Your task to perform on an android device: star an email in the gmail app Image 0: 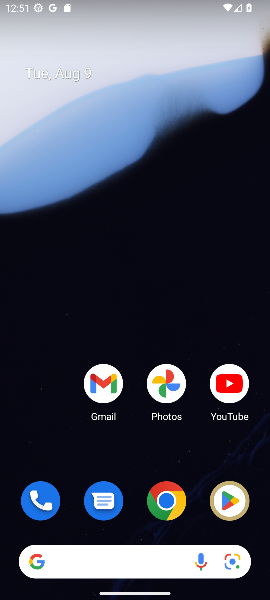
Step 0: click (112, 386)
Your task to perform on an android device: star an email in the gmail app Image 1: 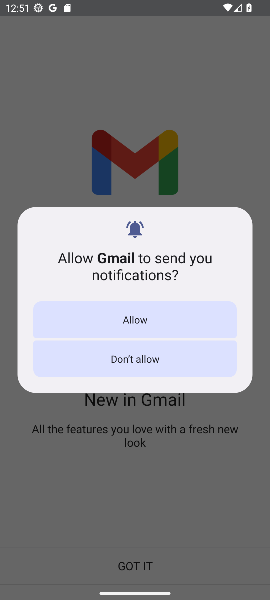
Step 1: click (193, 321)
Your task to perform on an android device: star an email in the gmail app Image 2: 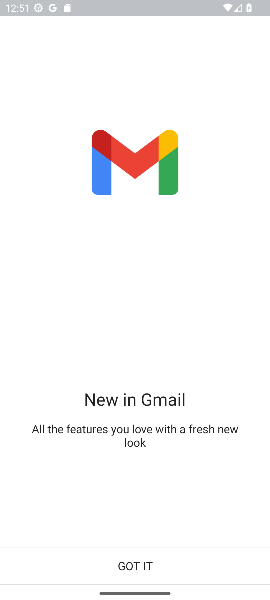
Step 2: click (155, 556)
Your task to perform on an android device: star an email in the gmail app Image 3: 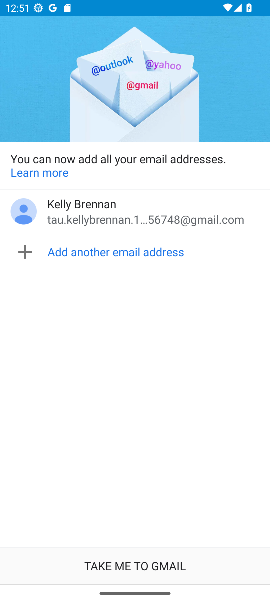
Step 3: click (138, 562)
Your task to perform on an android device: star an email in the gmail app Image 4: 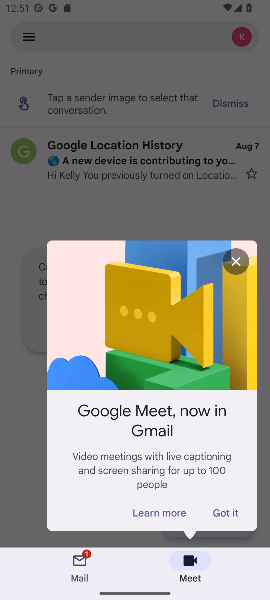
Step 4: click (242, 254)
Your task to perform on an android device: star an email in the gmail app Image 5: 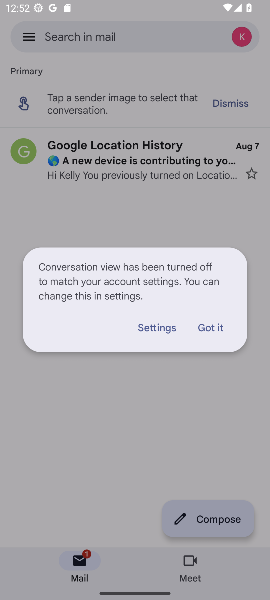
Step 5: click (212, 329)
Your task to perform on an android device: star an email in the gmail app Image 6: 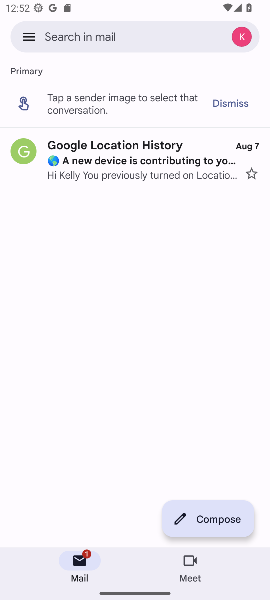
Step 6: click (254, 173)
Your task to perform on an android device: star an email in the gmail app Image 7: 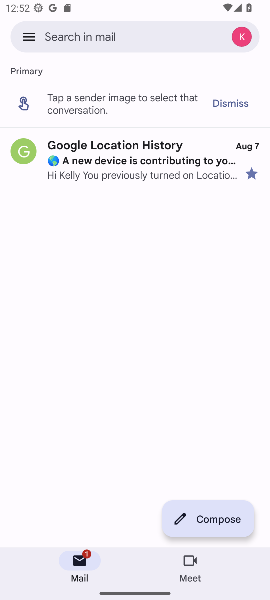
Step 7: task complete